Your task to perform on an android device: Open calendar and show me the third week of next month Image 0: 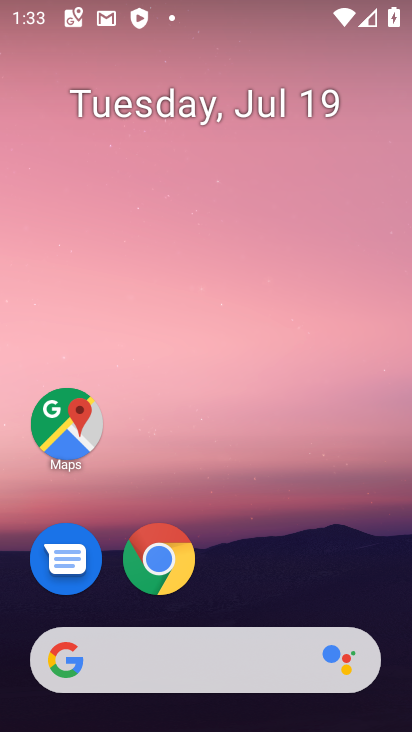
Step 0: drag from (198, 629) to (204, 105)
Your task to perform on an android device: Open calendar and show me the third week of next month Image 1: 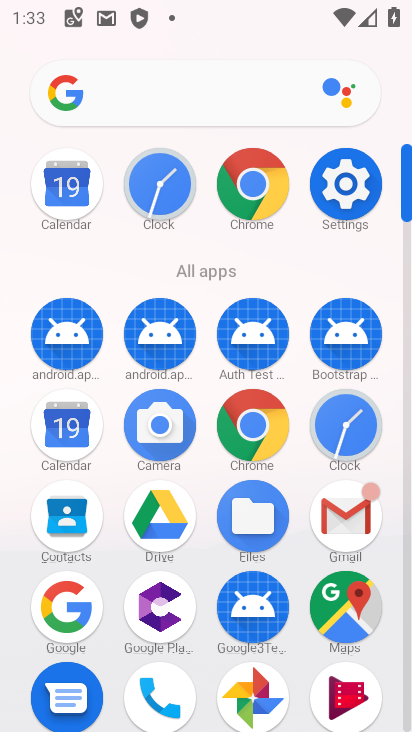
Step 1: click (68, 426)
Your task to perform on an android device: Open calendar and show me the third week of next month Image 2: 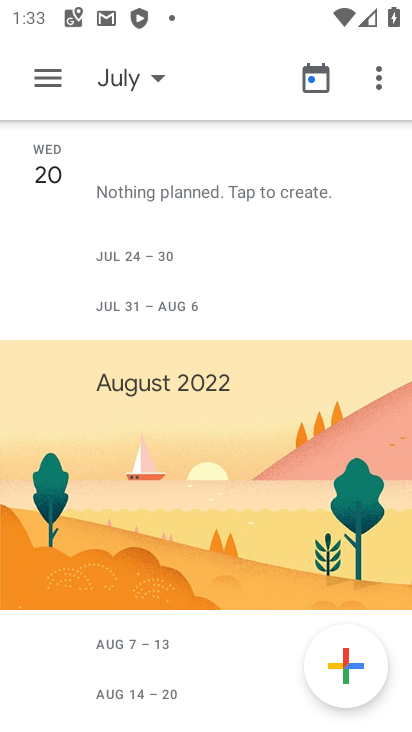
Step 2: click (128, 70)
Your task to perform on an android device: Open calendar and show me the third week of next month Image 3: 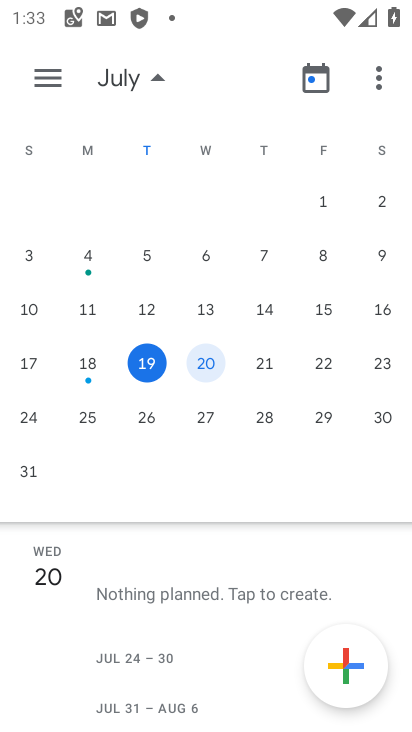
Step 3: drag from (390, 379) to (0, 406)
Your task to perform on an android device: Open calendar and show me the third week of next month Image 4: 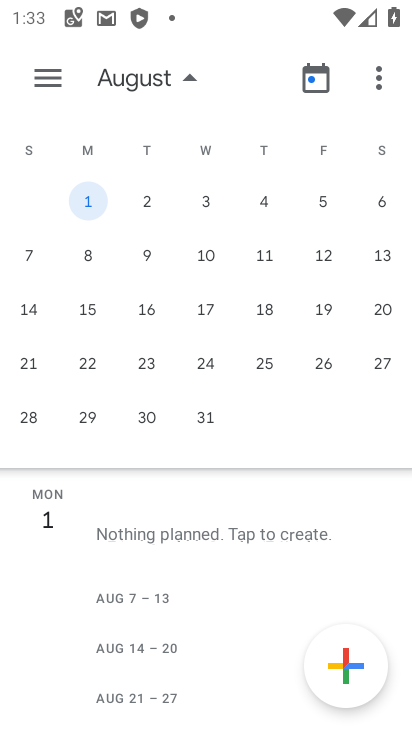
Step 4: click (24, 310)
Your task to perform on an android device: Open calendar and show me the third week of next month Image 5: 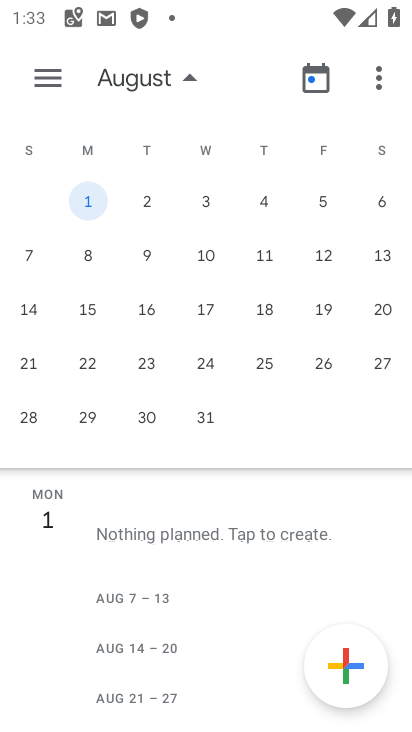
Step 5: click (33, 314)
Your task to perform on an android device: Open calendar and show me the third week of next month Image 6: 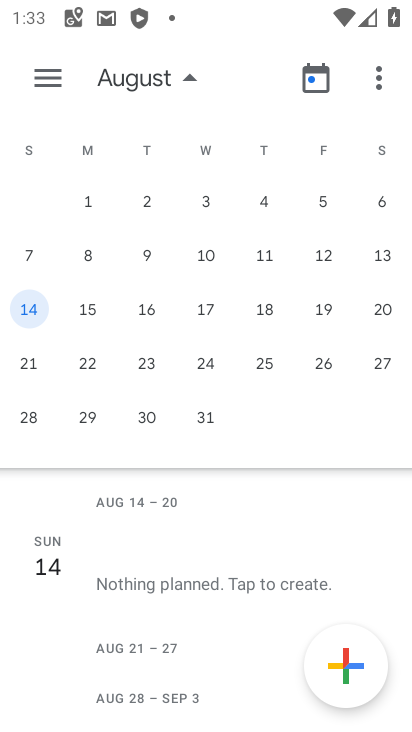
Step 6: task complete